Your task to perform on an android device: Open Maps and search for coffee Image 0: 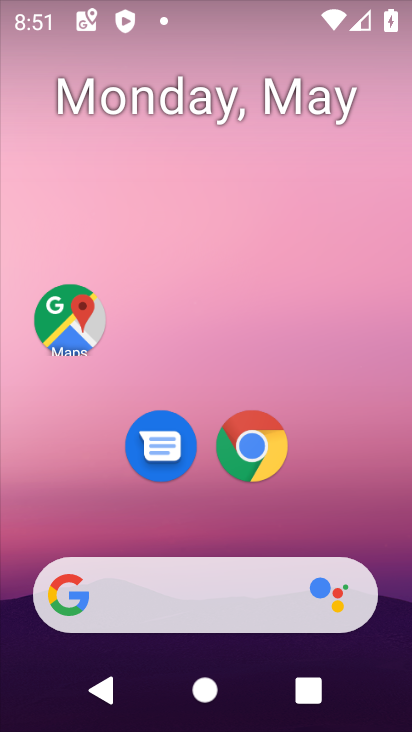
Step 0: click (69, 313)
Your task to perform on an android device: Open Maps and search for coffee Image 1: 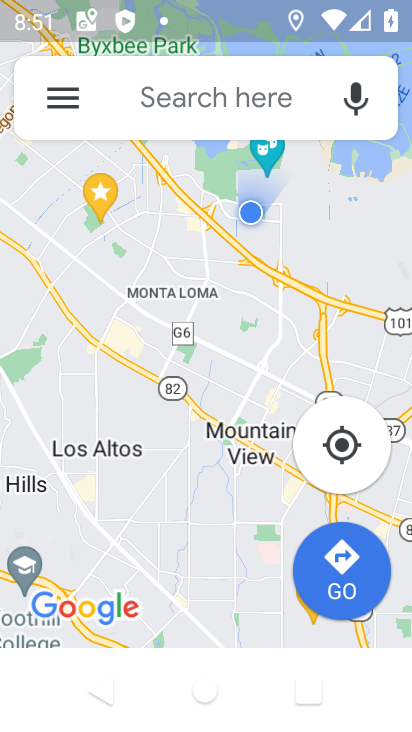
Step 1: click (174, 93)
Your task to perform on an android device: Open Maps and search for coffee Image 2: 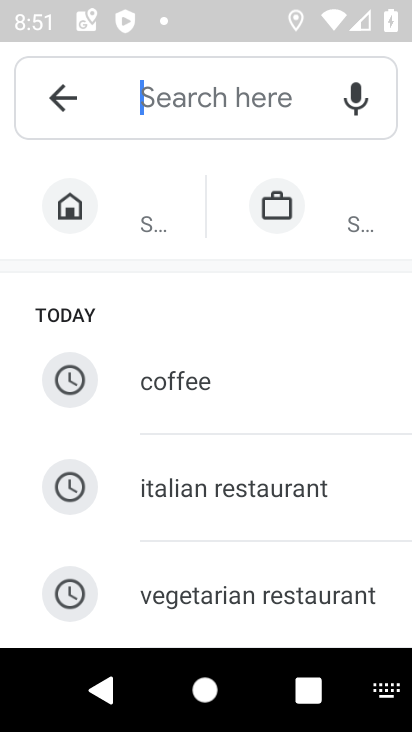
Step 2: click (230, 379)
Your task to perform on an android device: Open Maps and search for coffee Image 3: 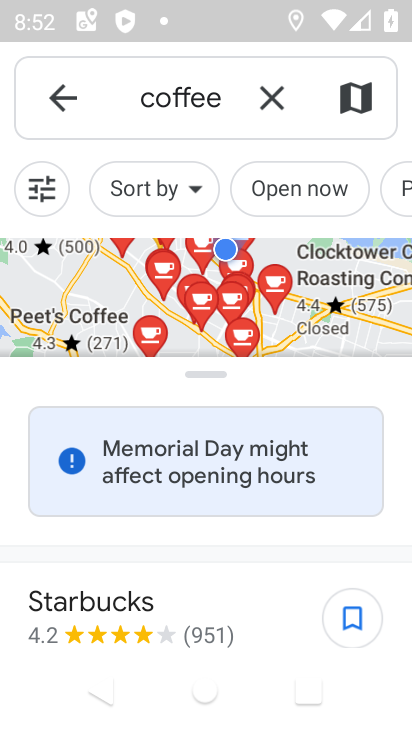
Step 3: task complete